Your task to perform on an android device: Go to settings Image 0: 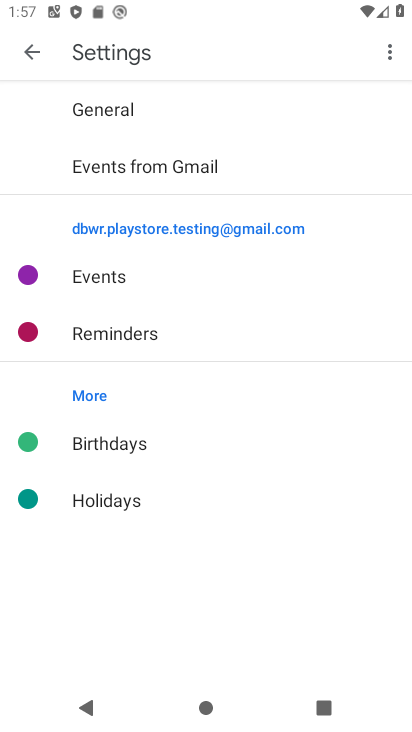
Step 0: press home button
Your task to perform on an android device: Go to settings Image 1: 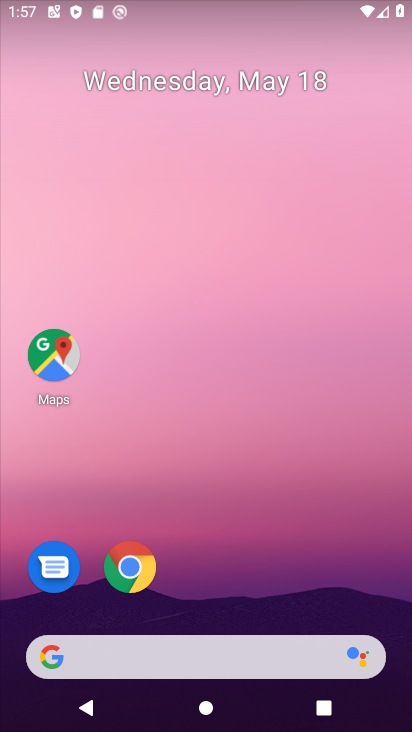
Step 1: drag from (228, 597) to (240, 60)
Your task to perform on an android device: Go to settings Image 2: 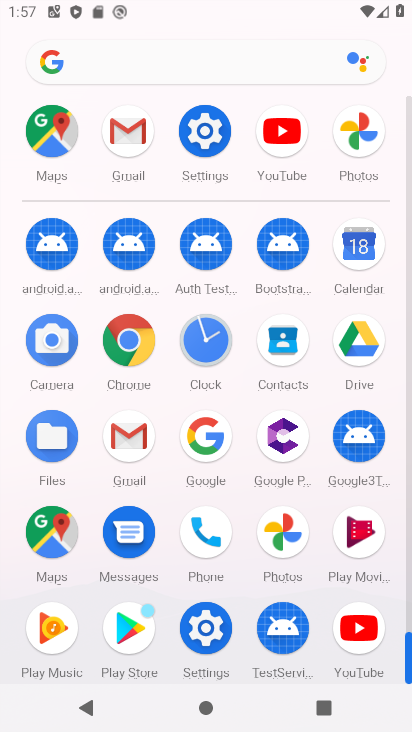
Step 2: click (203, 119)
Your task to perform on an android device: Go to settings Image 3: 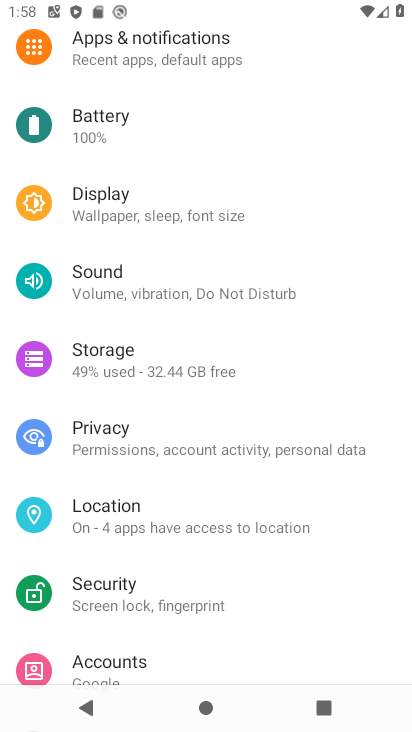
Step 3: task complete